Your task to perform on an android device: Open Reddit.com Image 0: 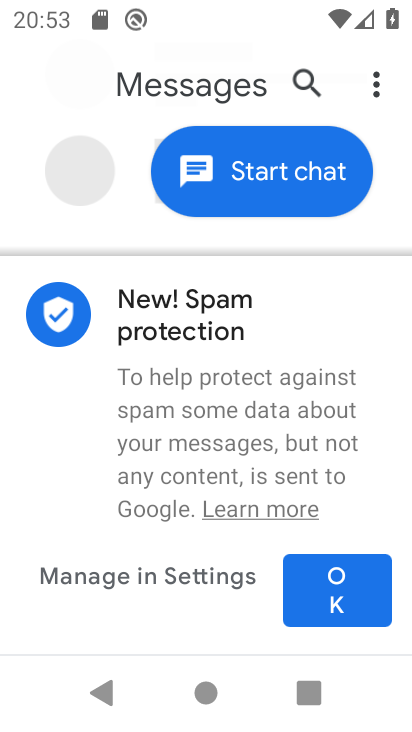
Step 0: press home button
Your task to perform on an android device: Open Reddit.com Image 1: 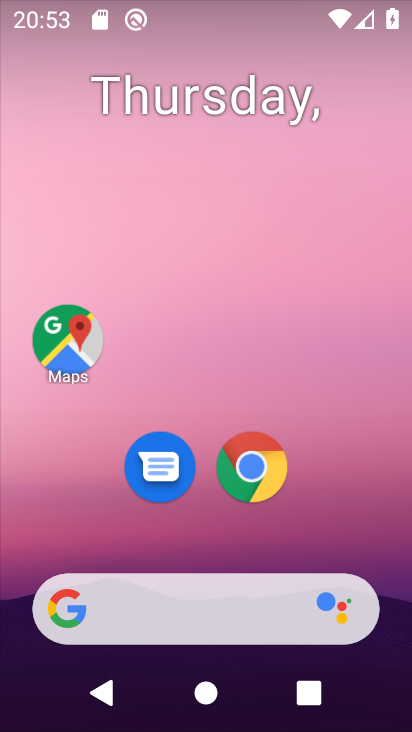
Step 1: click (252, 461)
Your task to perform on an android device: Open Reddit.com Image 2: 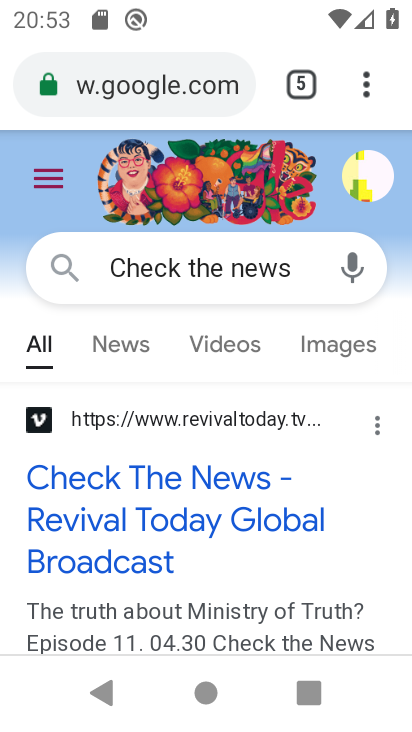
Step 2: click (366, 66)
Your task to perform on an android device: Open Reddit.com Image 3: 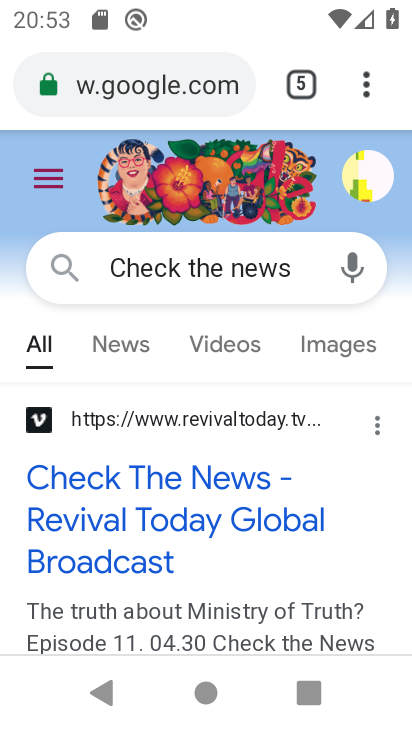
Step 3: click (362, 87)
Your task to perform on an android device: Open Reddit.com Image 4: 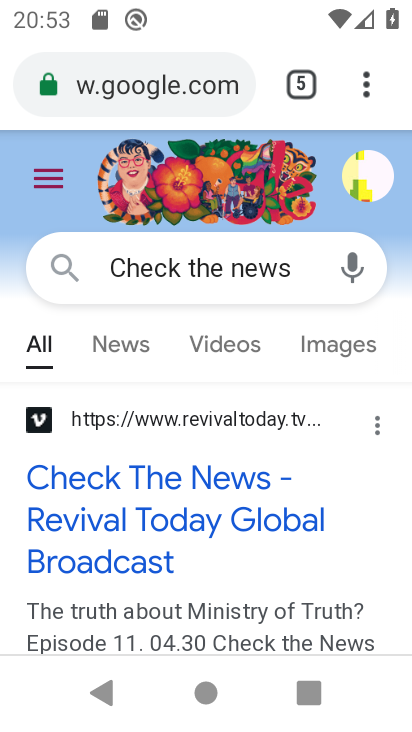
Step 4: click (366, 79)
Your task to perform on an android device: Open Reddit.com Image 5: 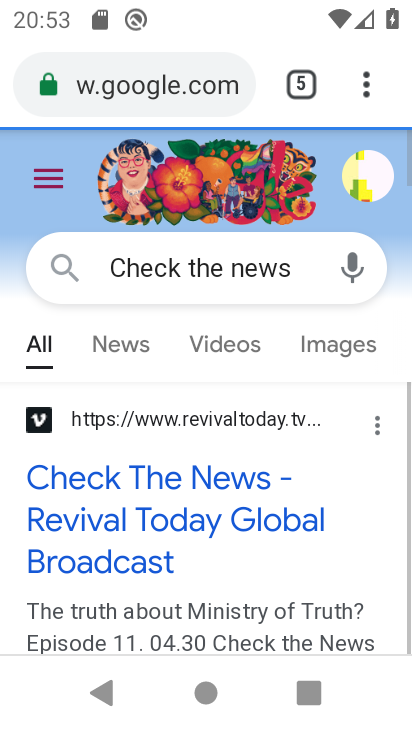
Step 5: click (364, 90)
Your task to perform on an android device: Open Reddit.com Image 6: 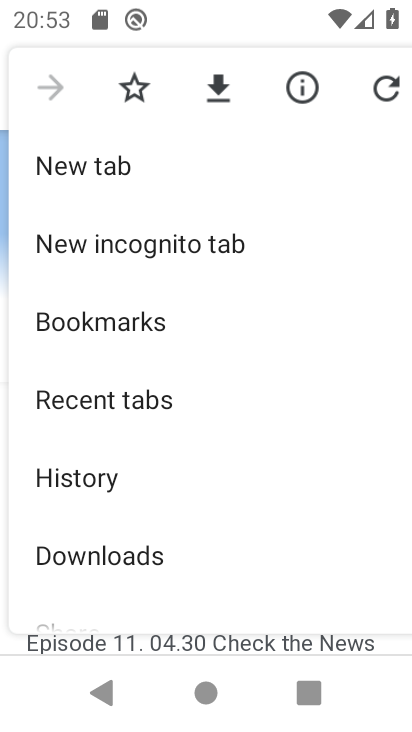
Step 6: click (135, 155)
Your task to perform on an android device: Open Reddit.com Image 7: 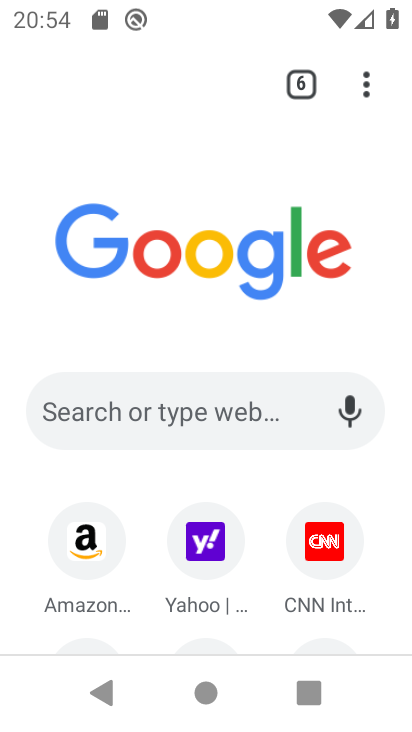
Step 7: click (250, 413)
Your task to perform on an android device: Open Reddit.com Image 8: 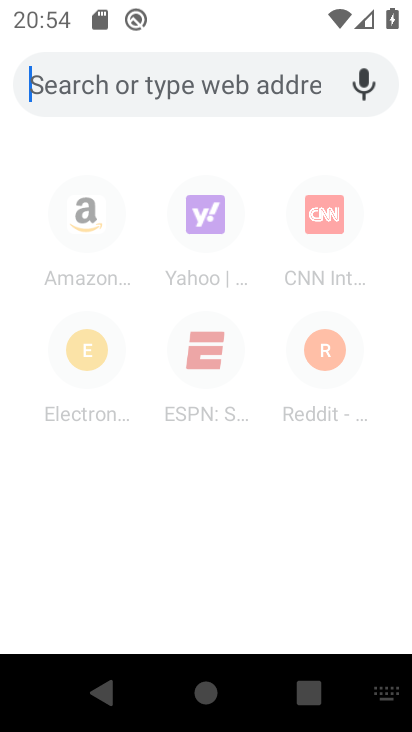
Step 8: type " Reddit.com"
Your task to perform on an android device: Open Reddit.com Image 9: 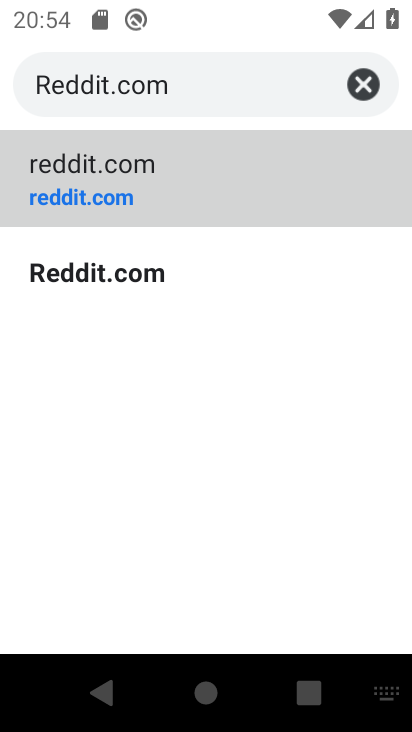
Step 9: click (257, 179)
Your task to perform on an android device: Open Reddit.com Image 10: 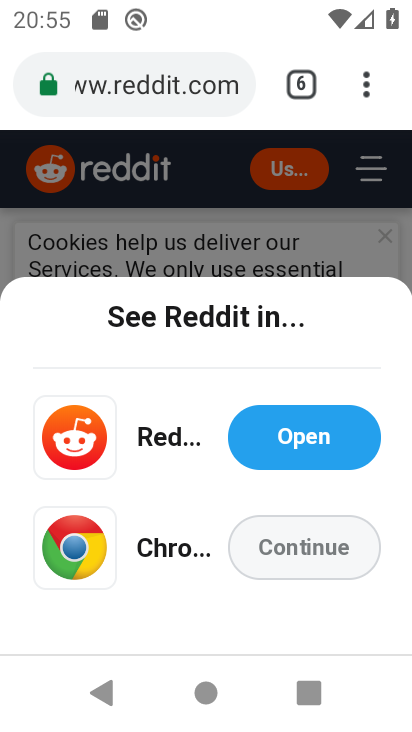
Step 10: task complete